Your task to perform on an android device: open app "Airtel Thanks" Image 0: 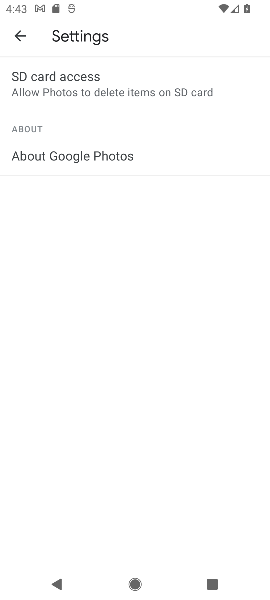
Step 0: press home button
Your task to perform on an android device: open app "Airtel Thanks" Image 1: 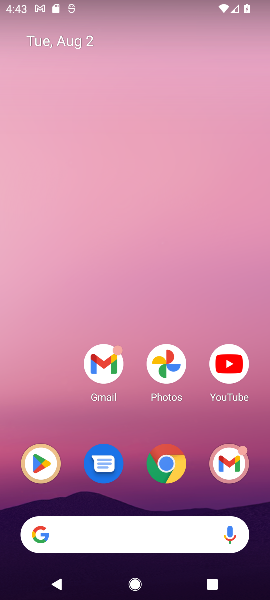
Step 1: click (26, 454)
Your task to perform on an android device: open app "Airtel Thanks" Image 2: 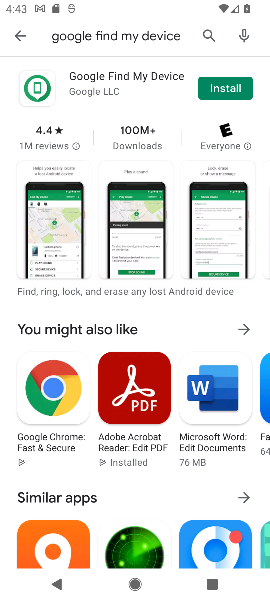
Step 2: click (206, 30)
Your task to perform on an android device: open app "Airtel Thanks" Image 3: 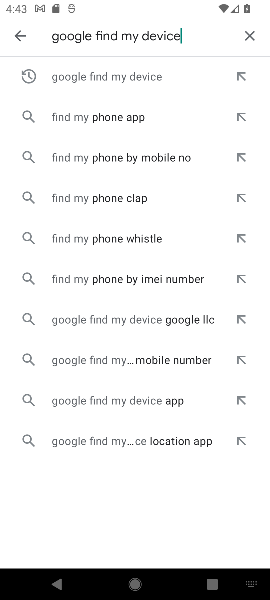
Step 3: click (246, 28)
Your task to perform on an android device: open app "Airtel Thanks" Image 4: 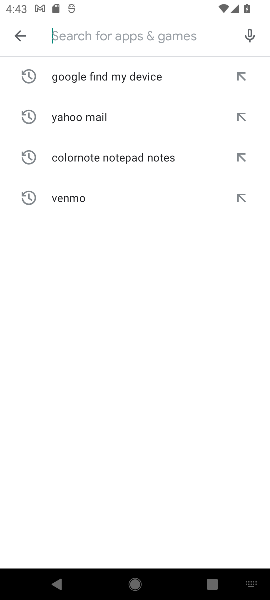
Step 4: type "Airtel Thanks"
Your task to perform on an android device: open app "Airtel Thanks" Image 5: 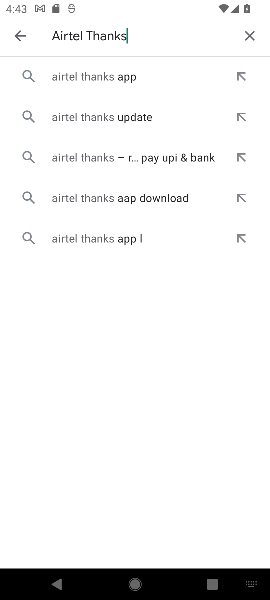
Step 5: click (115, 79)
Your task to perform on an android device: open app "Airtel Thanks" Image 6: 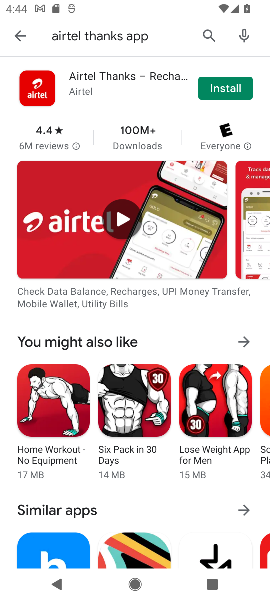
Step 6: task complete